Your task to perform on an android device: turn on wifi Image 0: 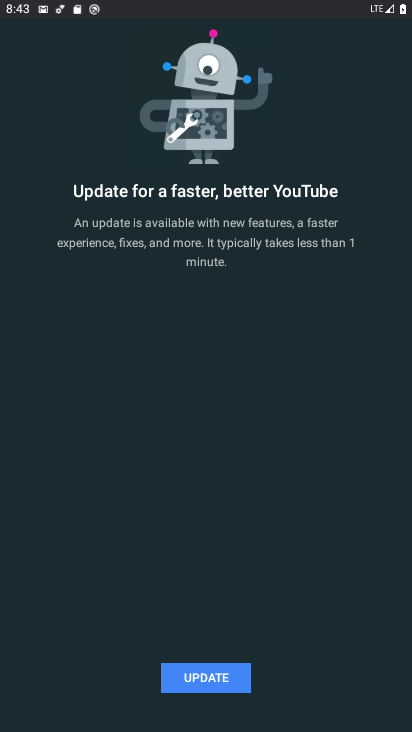
Step 0: press home button
Your task to perform on an android device: turn on wifi Image 1: 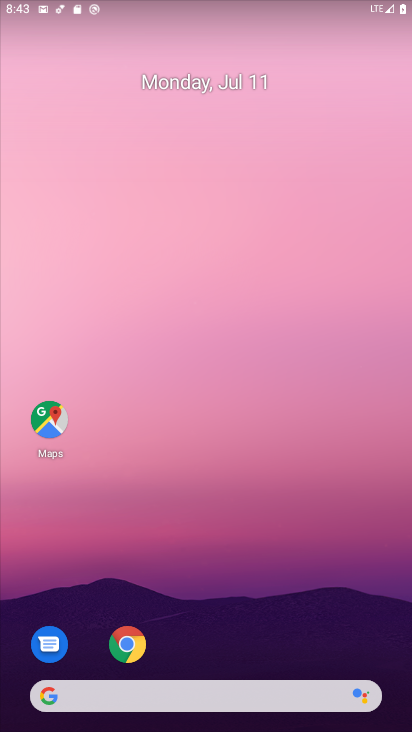
Step 1: drag from (192, 684) to (213, 412)
Your task to perform on an android device: turn on wifi Image 2: 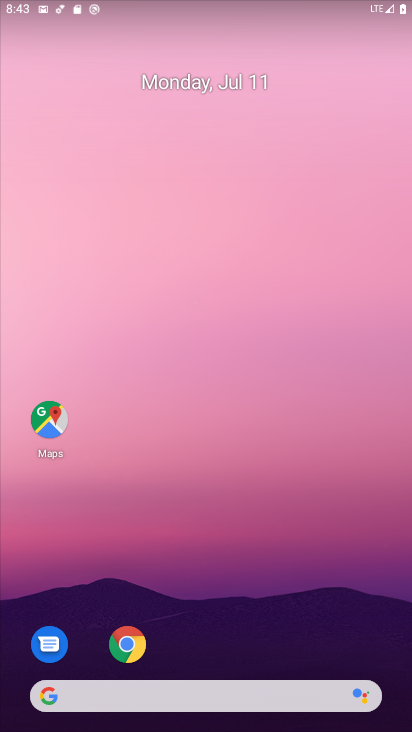
Step 2: drag from (284, 653) to (254, 317)
Your task to perform on an android device: turn on wifi Image 3: 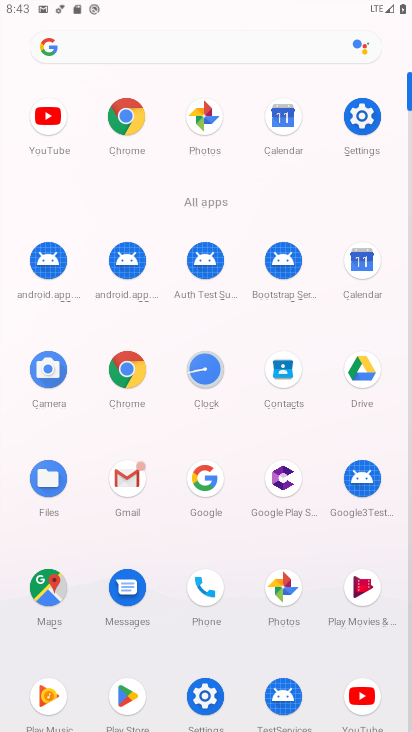
Step 3: click (351, 137)
Your task to perform on an android device: turn on wifi Image 4: 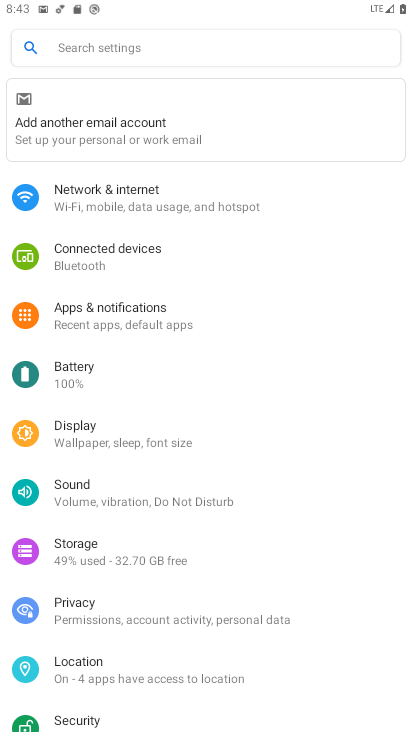
Step 4: click (94, 194)
Your task to perform on an android device: turn on wifi Image 5: 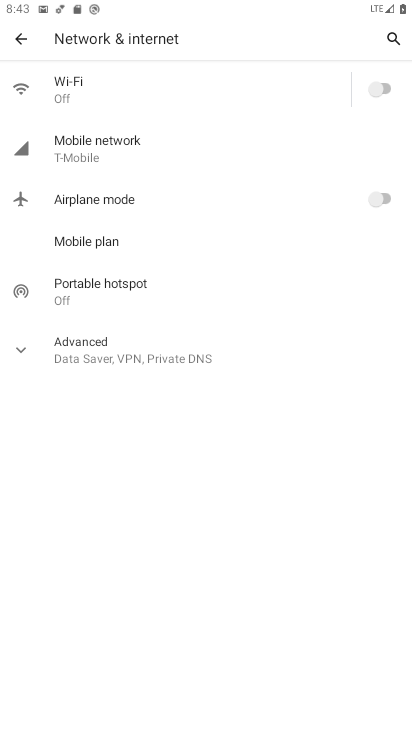
Step 5: click (384, 84)
Your task to perform on an android device: turn on wifi Image 6: 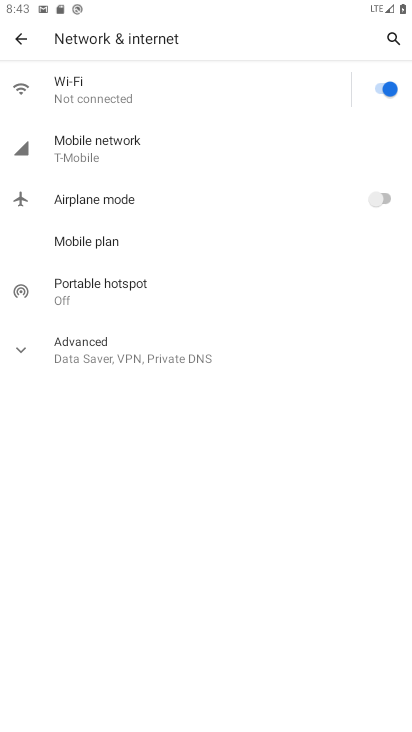
Step 6: task complete